Your task to perform on an android device: check data usage Image 0: 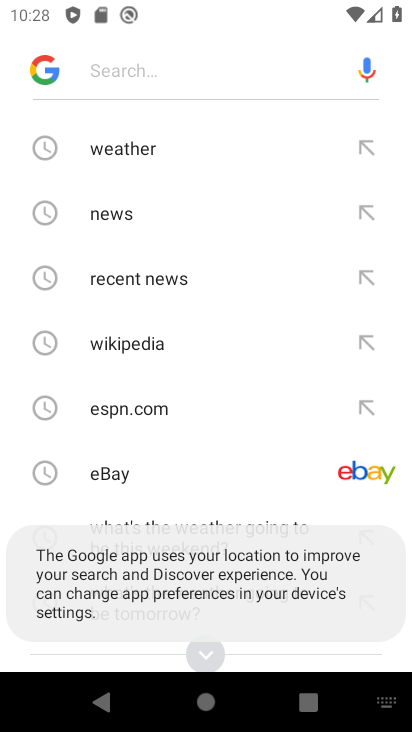
Step 0: press back button
Your task to perform on an android device: check data usage Image 1: 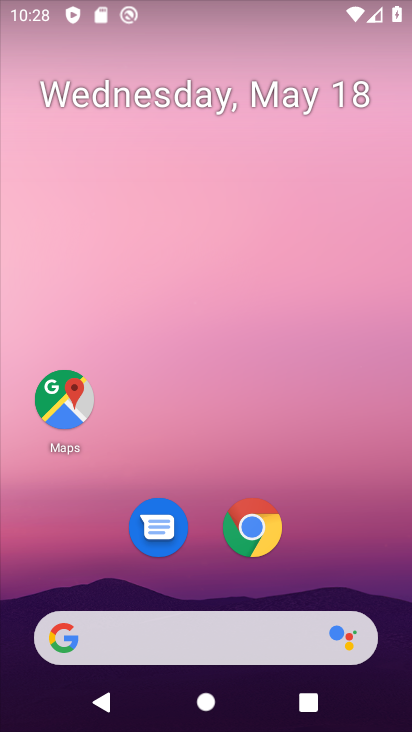
Step 1: drag from (379, 560) to (293, 95)
Your task to perform on an android device: check data usage Image 2: 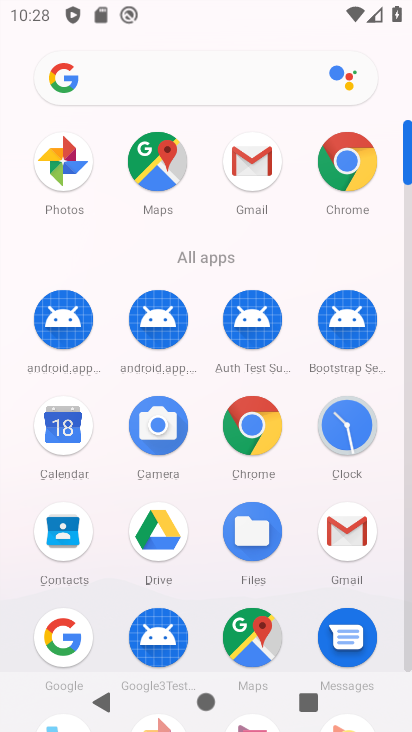
Step 2: click (410, 669)
Your task to perform on an android device: check data usage Image 3: 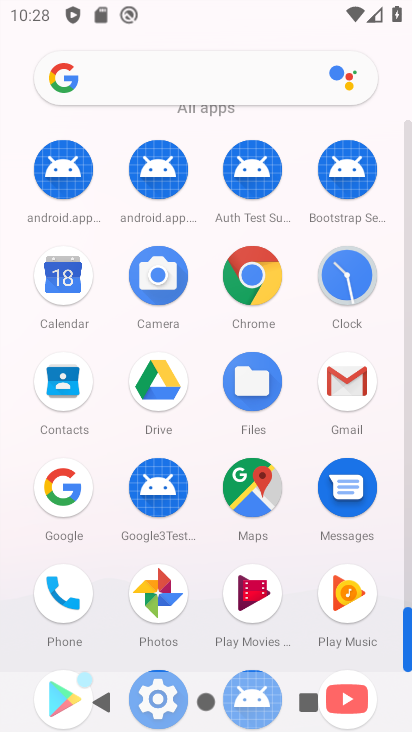
Step 3: drag from (390, 600) to (390, 419)
Your task to perform on an android device: check data usage Image 4: 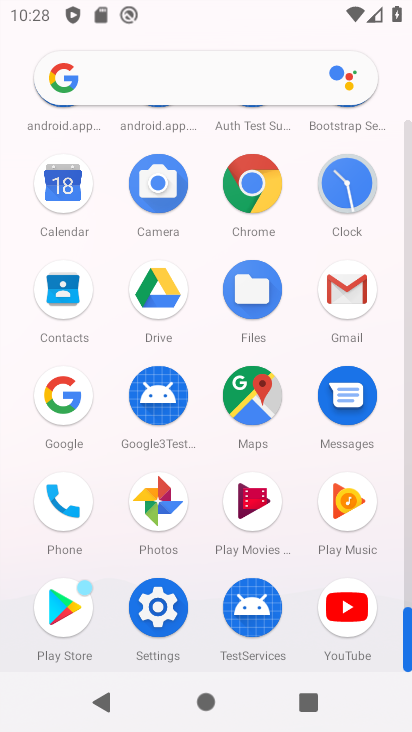
Step 4: click (172, 609)
Your task to perform on an android device: check data usage Image 5: 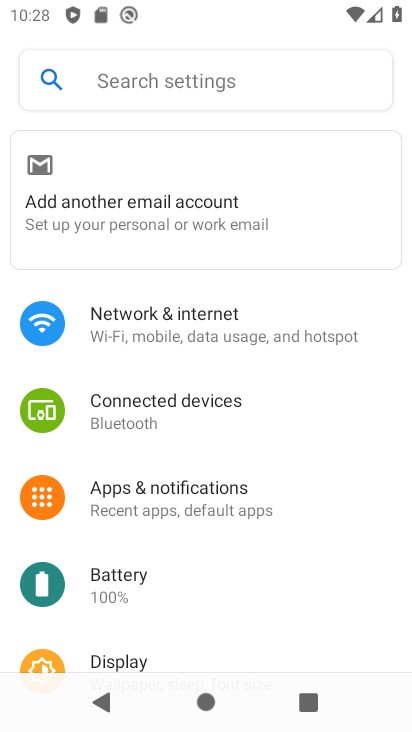
Step 5: click (275, 336)
Your task to perform on an android device: check data usage Image 6: 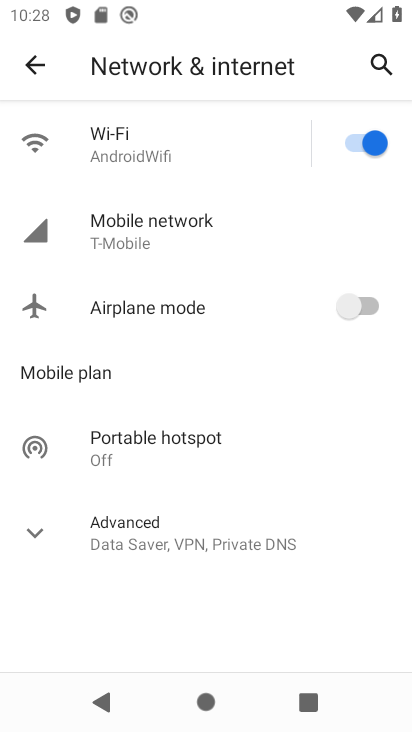
Step 6: click (193, 138)
Your task to perform on an android device: check data usage Image 7: 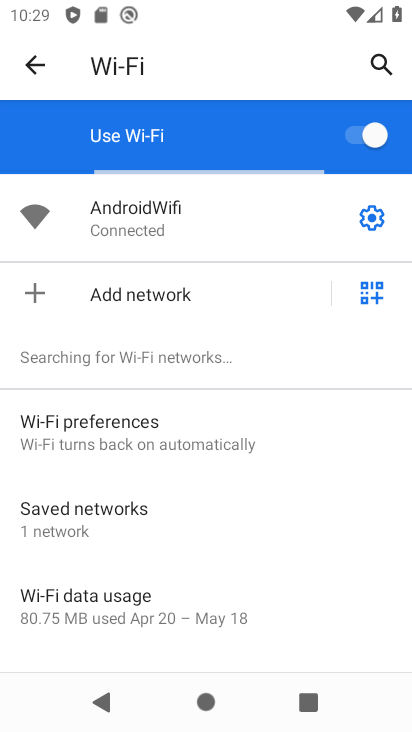
Step 7: click (166, 591)
Your task to perform on an android device: check data usage Image 8: 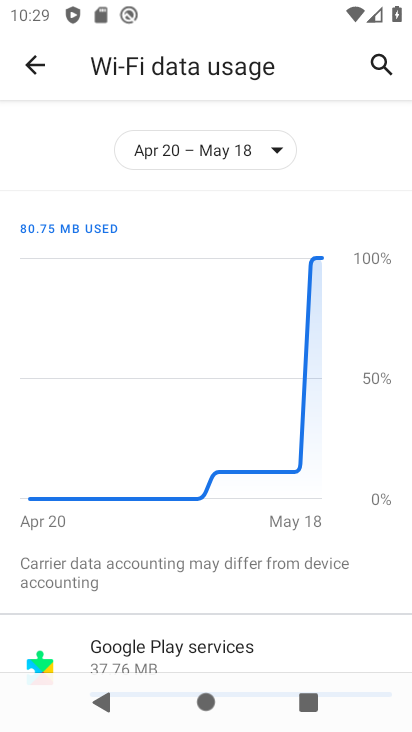
Step 8: task complete